Your task to perform on an android device: Open my contact list Image 0: 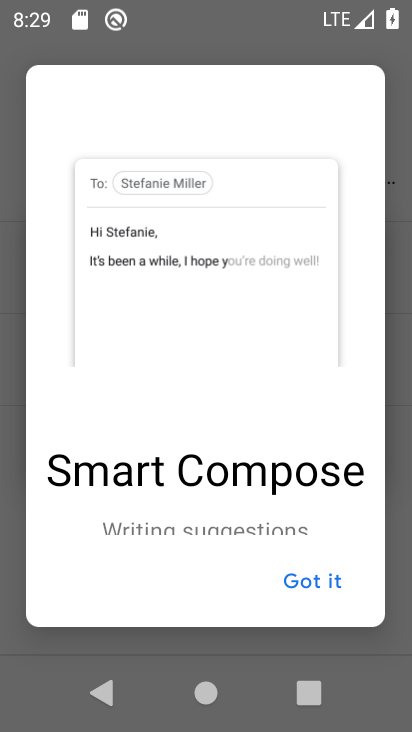
Step 0: press home button
Your task to perform on an android device: Open my contact list Image 1: 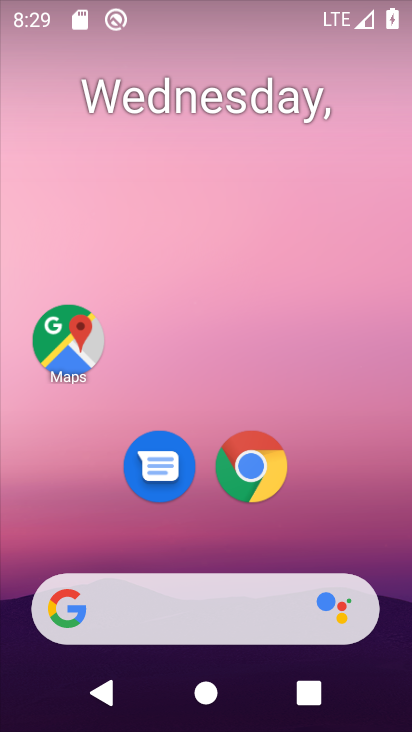
Step 1: drag from (228, 722) to (239, 290)
Your task to perform on an android device: Open my contact list Image 2: 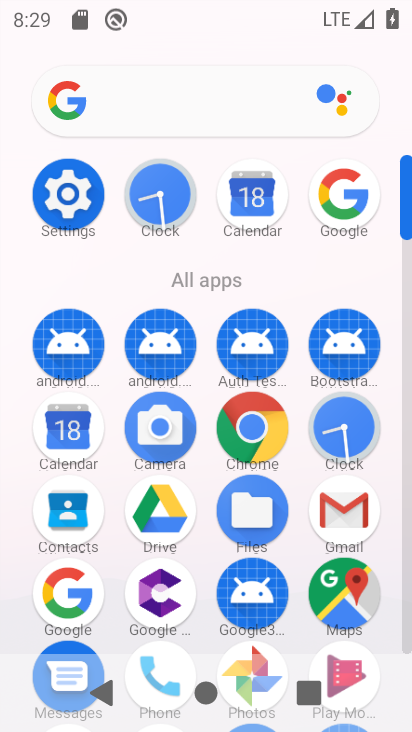
Step 2: click (65, 514)
Your task to perform on an android device: Open my contact list Image 3: 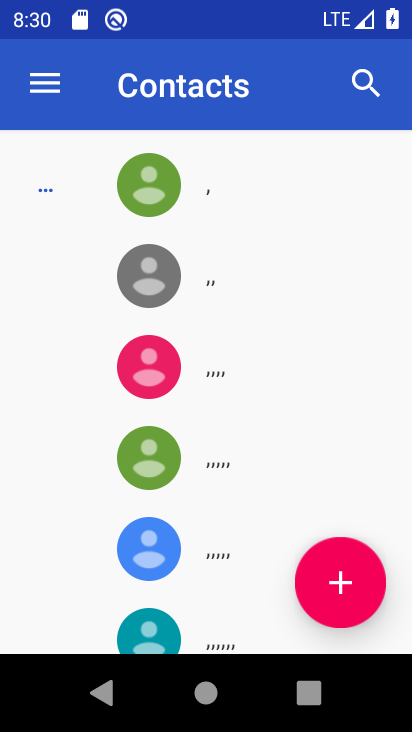
Step 3: task complete